Your task to perform on an android device: turn on wifi Image 0: 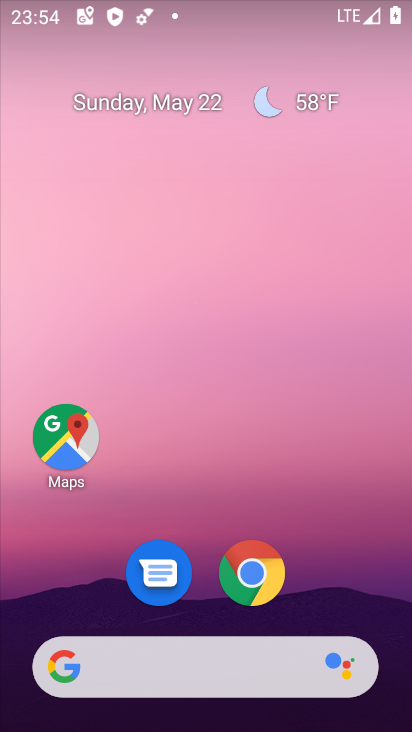
Step 0: drag from (217, 626) to (243, 1)
Your task to perform on an android device: turn on wifi Image 1: 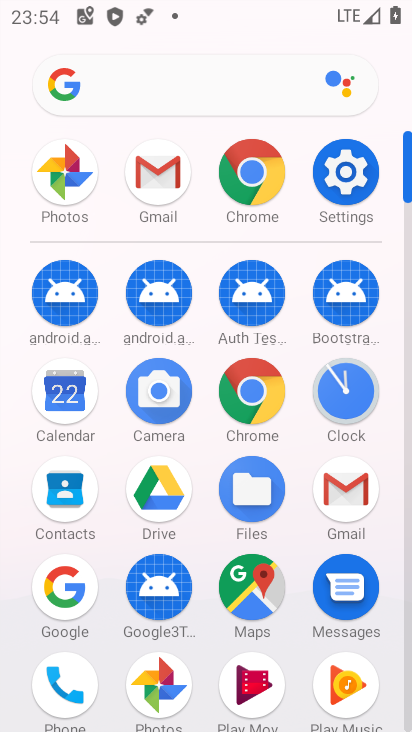
Step 1: click (355, 173)
Your task to perform on an android device: turn on wifi Image 2: 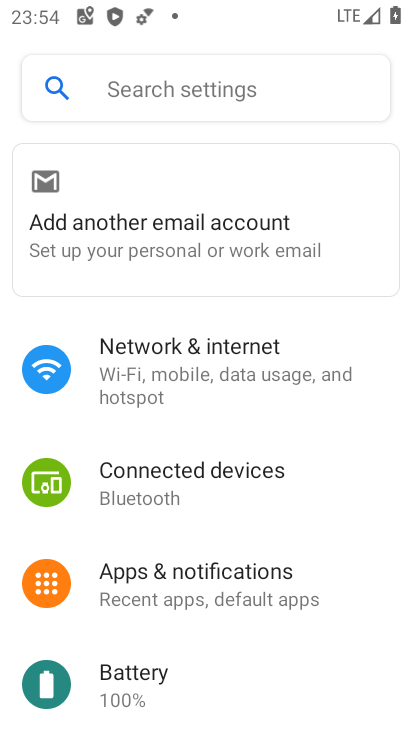
Step 2: click (242, 378)
Your task to perform on an android device: turn on wifi Image 3: 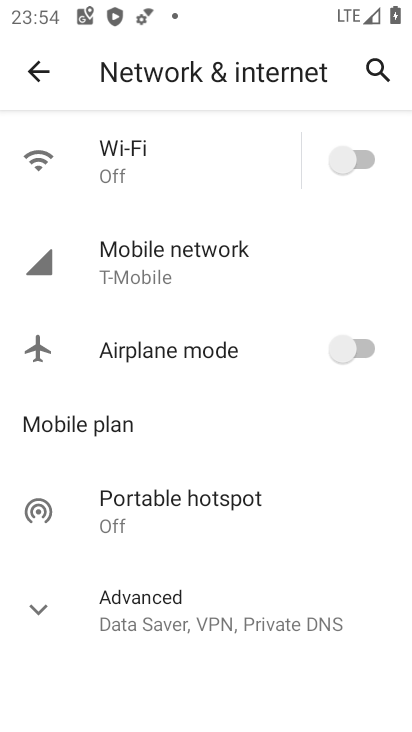
Step 3: click (372, 155)
Your task to perform on an android device: turn on wifi Image 4: 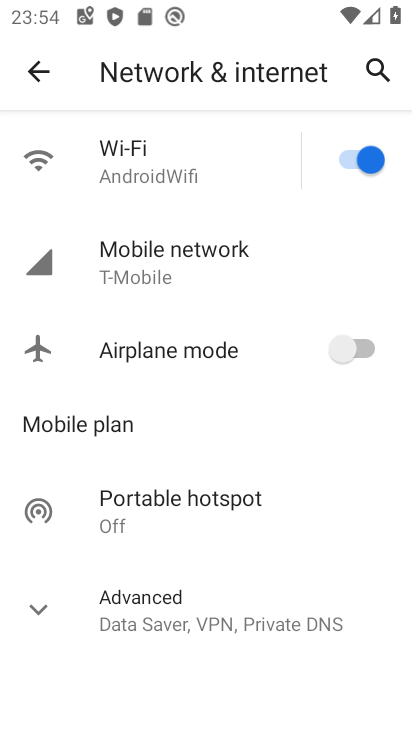
Step 4: task complete